Your task to perform on an android device: Open eBay Image 0: 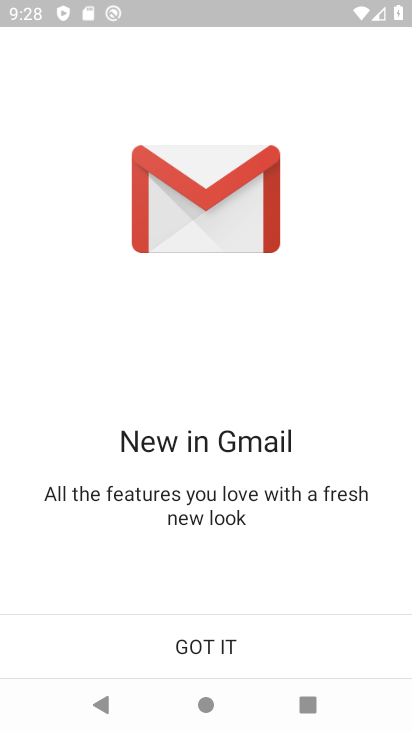
Step 0: press home button
Your task to perform on an android device: Open eBay Image 1: 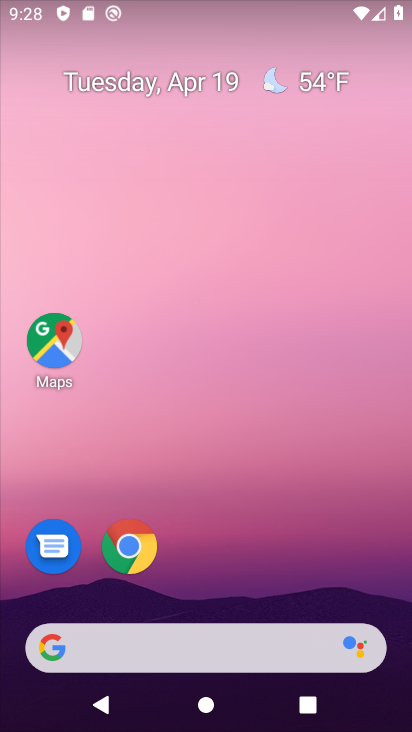
Step 1: click (129, 546)
Your task to perform on an android device: Open eBay Image 2: 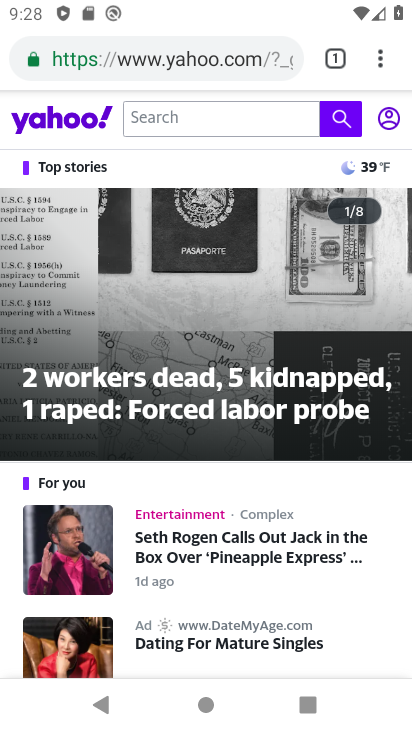
Step 2: click (177, 62)
Your task to perform on an android device: Open eBay Image 3: 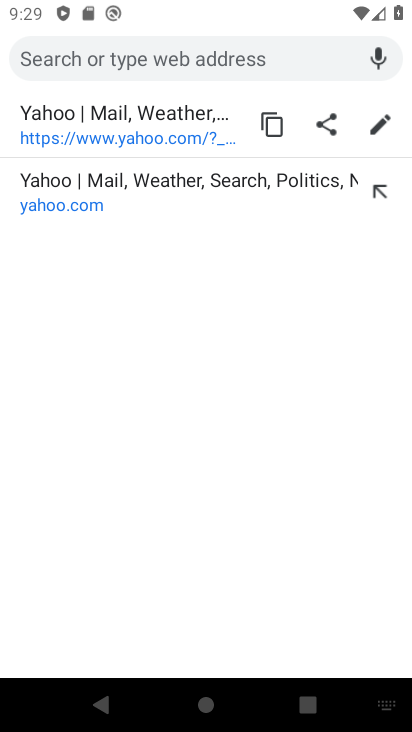
Step 3: type "eBay"
Your task to perform on an android device: Open eBay Image 4: 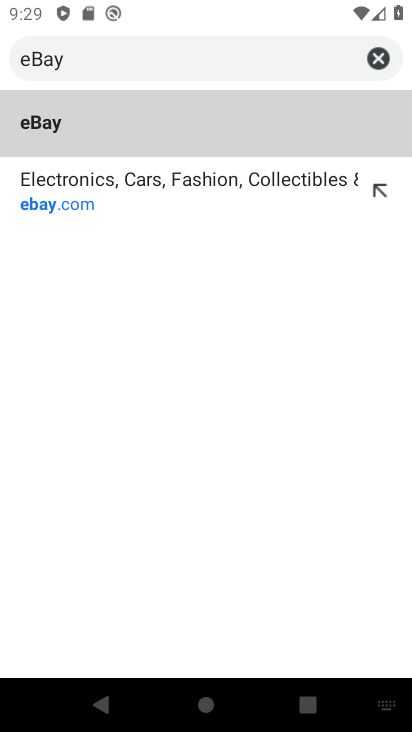
Step 4: click (59, 119)
Your task to perform on an android device: Open eBay Image 5: 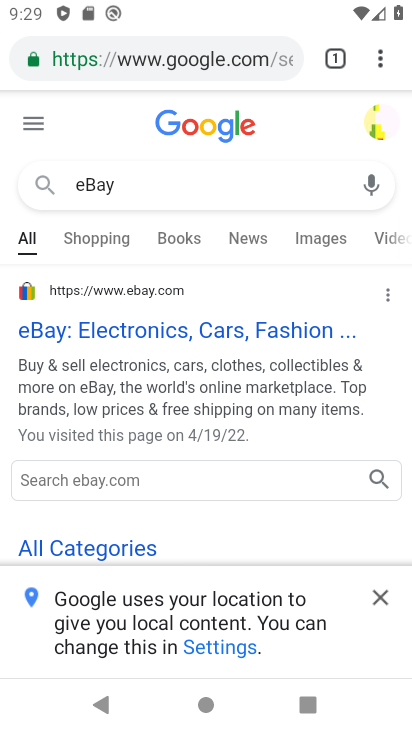
Step 5: task complete